Your task to perform on an android device: toggle data saver in the chrome app Image 0: 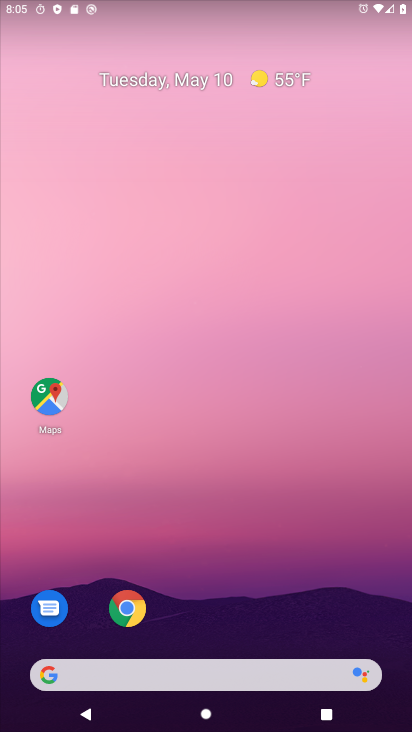
Step 0: click (127, 608)
Your task to perform on an android device: toggle data saver in the chrome app Image 1: 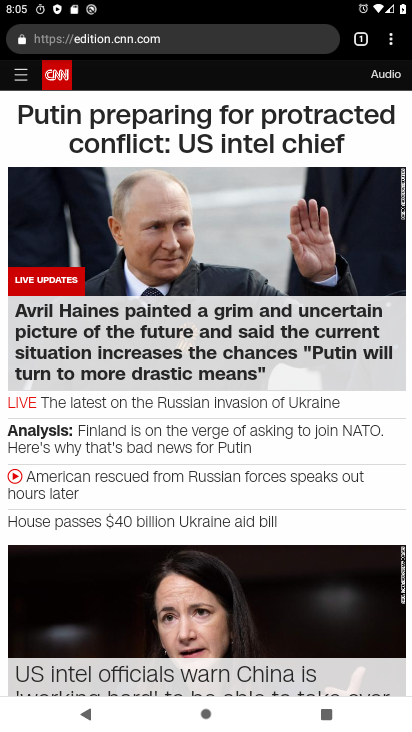
Step 1: click (391, 41)
Your task to perform on an android device: toggle data saver in the chrome app Image 2: 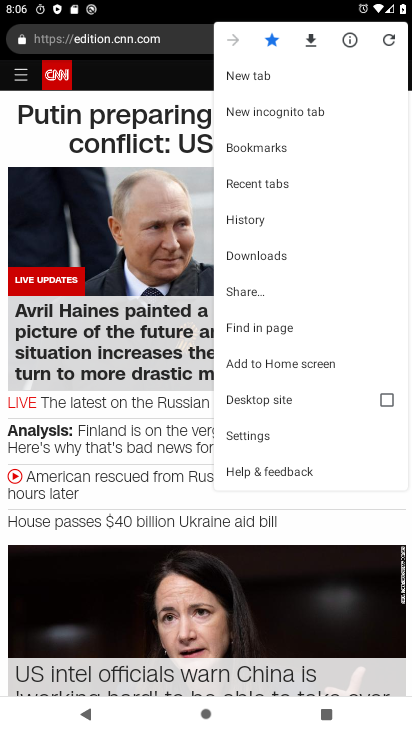
Step 2: click (250, 437)
Your task to perform on an android device: toggle data saver in the chrome app Image 3: 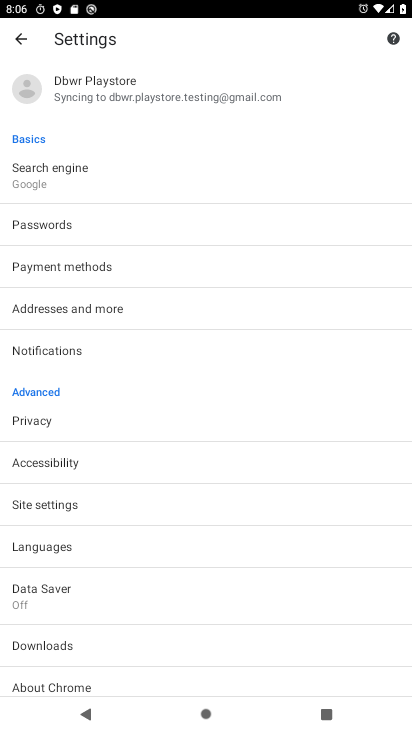
Step 3: click (65, 589)
Your task to perform on an android device: toggle data saver in the chrome app Image 4: 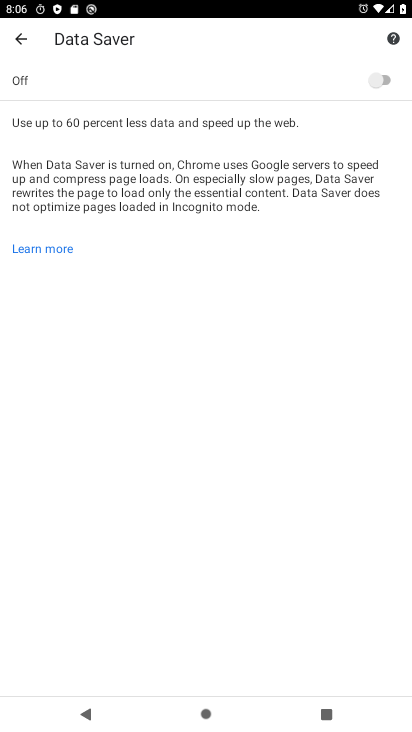
Step 4: click (378, 78)
Your task to perform on an android device: toggle data saver in the chrome app Image 5: 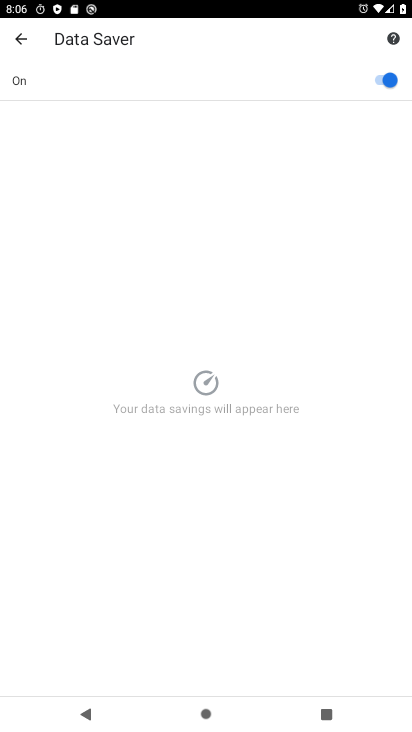
Step 5: task complete